Your task to perform on an android device: Open settings Image 0: 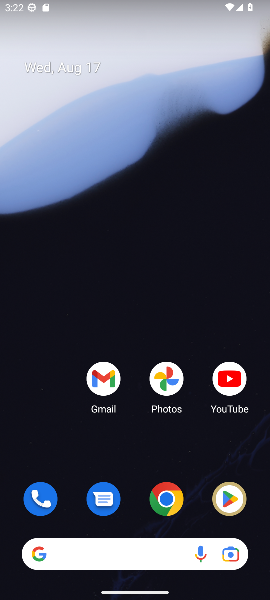
Step 0: drag from (201, 493) to (231, 61)
Your task to perform on an android device: Open settings Image 1: 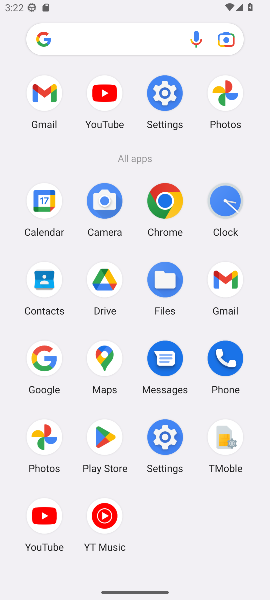
Step 1: click (159, 430)
Your task to perform on an android device: Open settings Image 2: 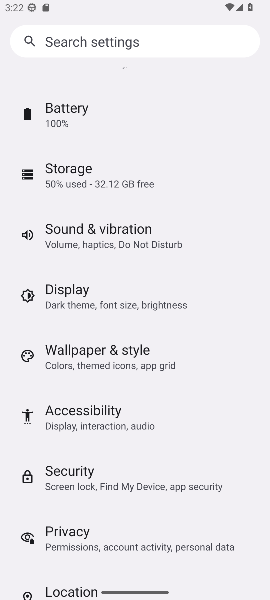
Step 2: task complete